Your task to perform on an android device: check the backup settings in the google photos Image 0: 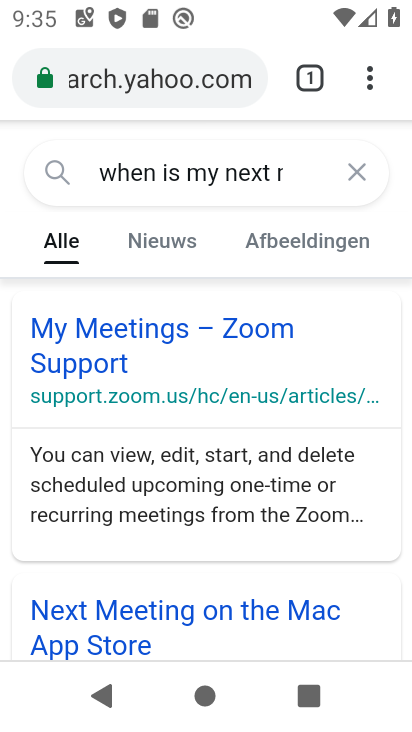
Step 0: press home button
Your task to perform on an android device: check the backup settings in the google photos Image 1: 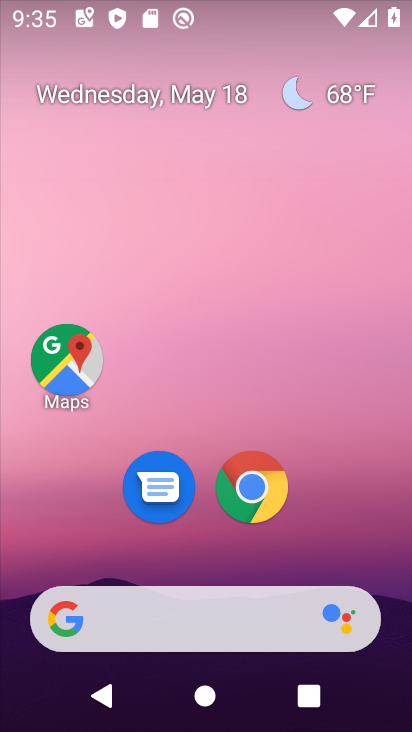
Step 1: drag from (349, 501) to (388, 145)
Your task to perform on an android device: check the backup settings in the google photos Image 2: 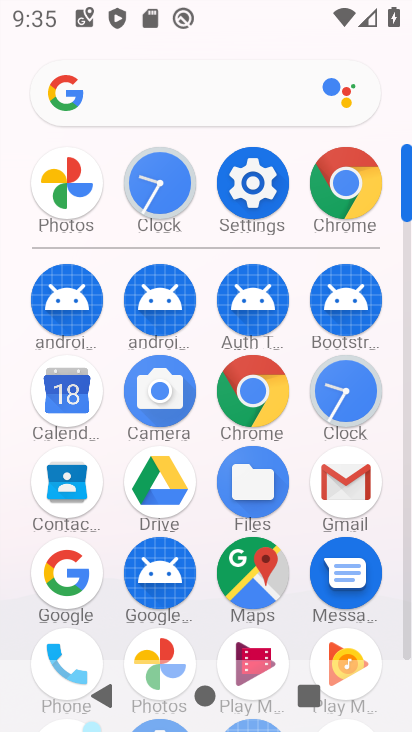
Step 2: drag from (204, 543) to (209, 285)
Your task to perform on an android device: check the backup settings in the google photos Image 3: 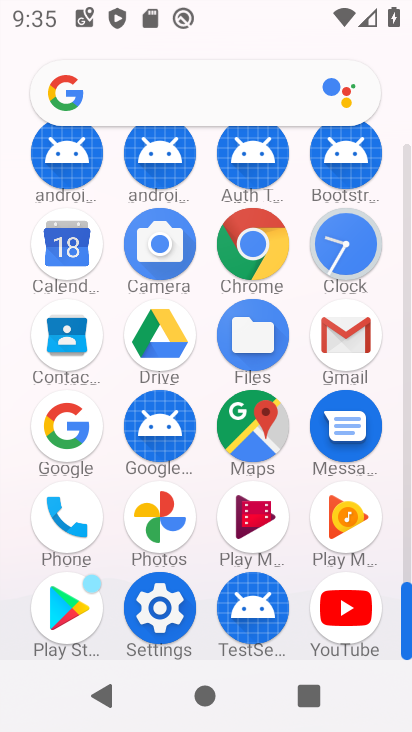
Step 3: click (172, 505)
Your task to perform on an android device: check the backup settings in the google photos Image 4: 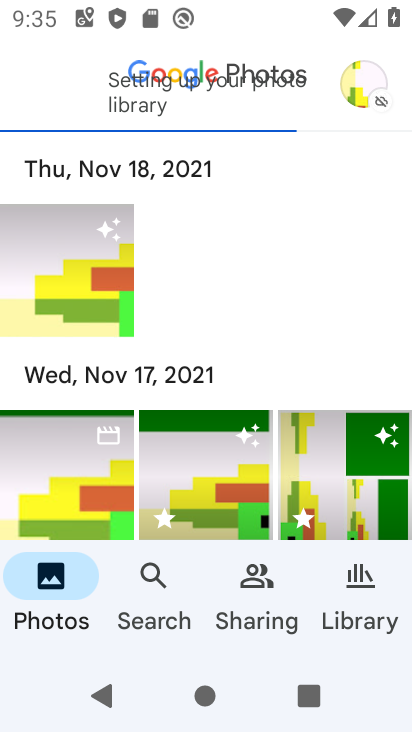
Step 4: click (377, 82)
Your task to perform on an android device: check the backup settings in the google photos Image 5: 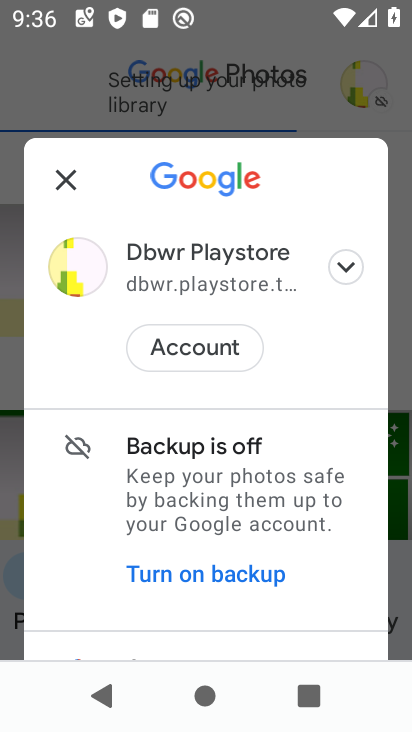
Step 5: click (61, 177)
Your task to perform on an android device: check the backup settings in the google photos Image 6: 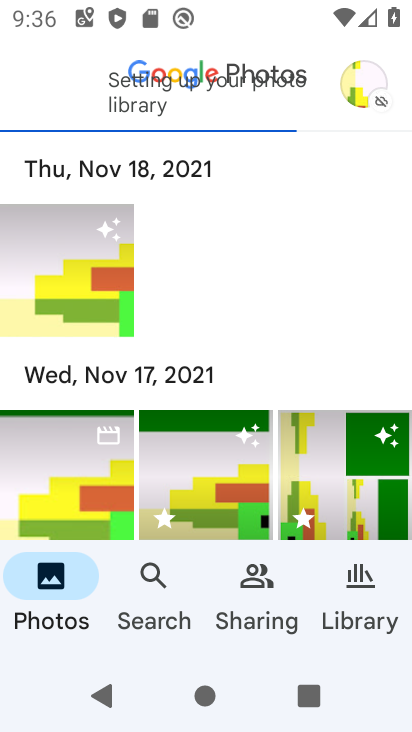
Step 6: click (359, 80)
Your task to perform on an android device: check the backup settings in the google photos Image 7: 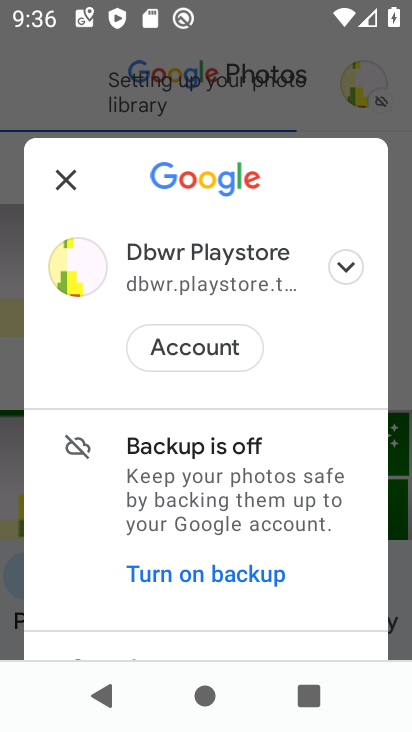
Step 7: drag from (291, 575) to (289, 329)
Your task to perform on an android device: check the backup settings in the google photos Image 8: 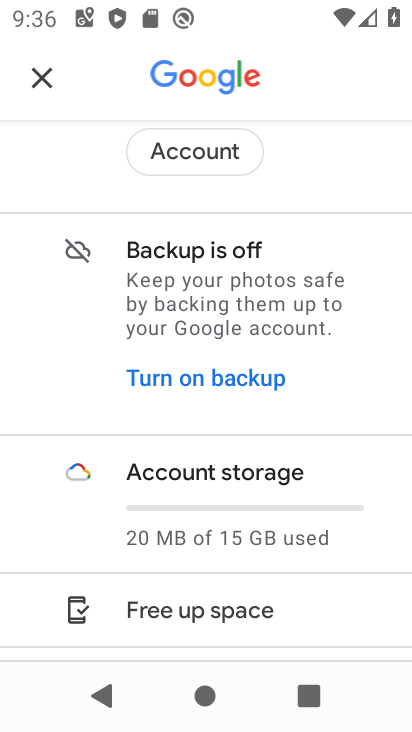
Step 8: drag from (310, 548) to (314, 264)
Your task to perform on an android device: check the backup settings in the google photos Image 9: 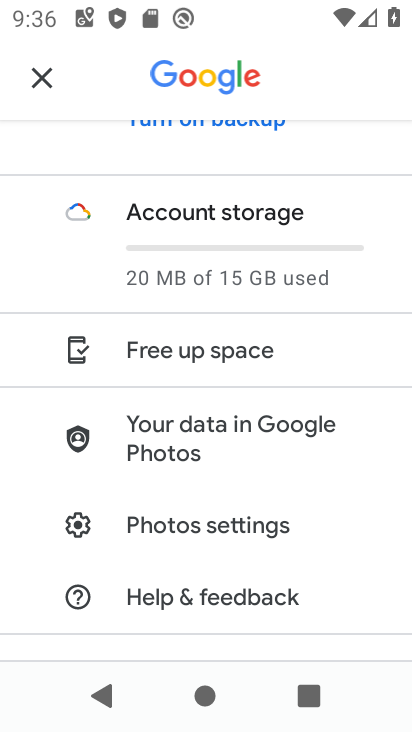
Step 9: click (243, 535)
Your task to perform on an android device: check the backup settings in the google photos Image 10: 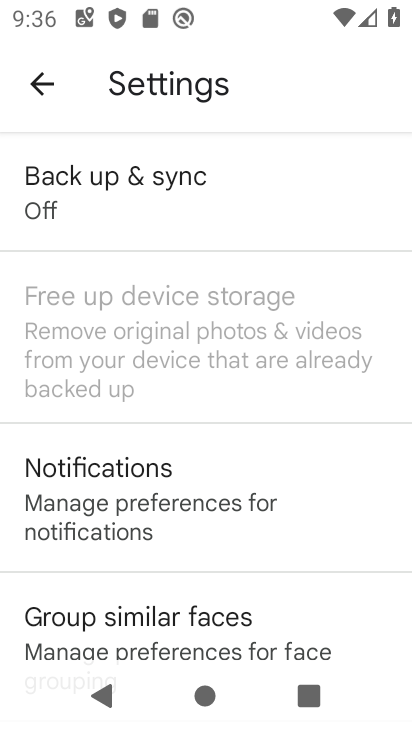
Step 10: click (178, 241)
Your task to perform on an android device: check the backup settings in the google photos Image 11: 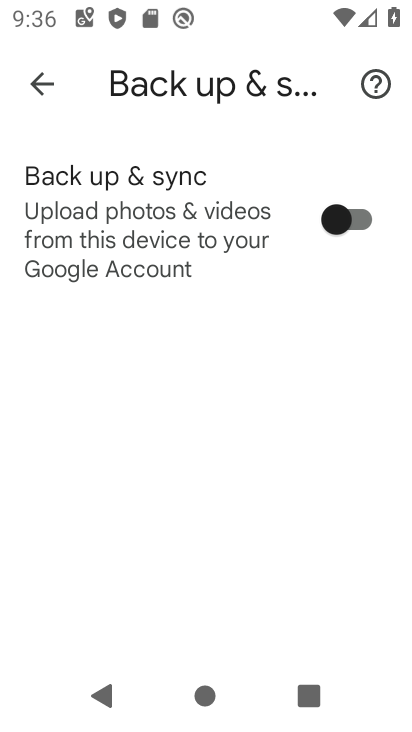
Step 11: task complete